Your task to perform on an android device: Clear the shopping cart on amazon.com. Add logitech g pro to the cart on amazon.com, then select checkout. Image 0: 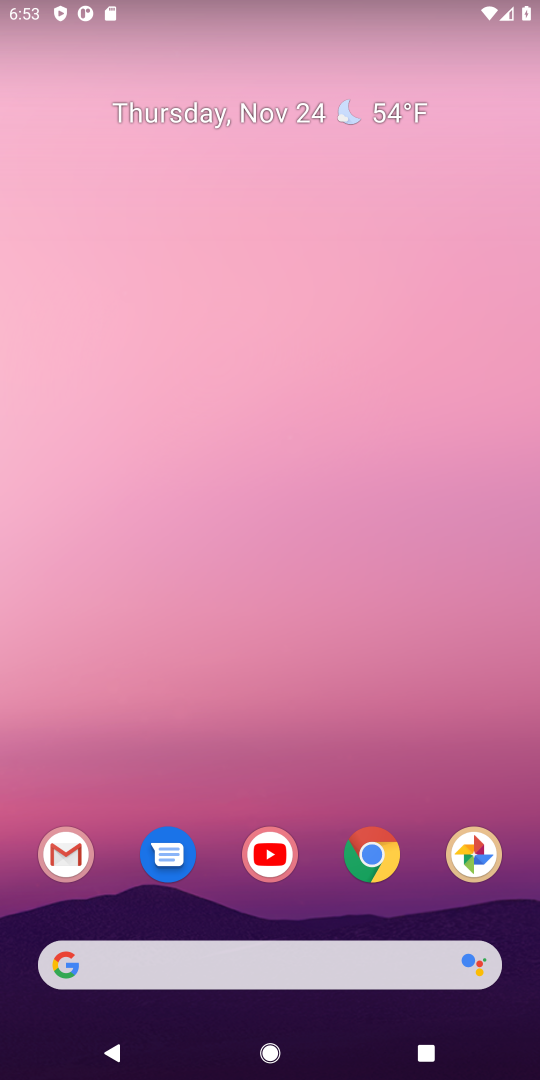
Step 0: click (379, 858)
Your task to perform on an android device: Clear the shopping cart on amazon.com. Add logitech g pro to the cart on amazon.com, then select checkout. Image 1: 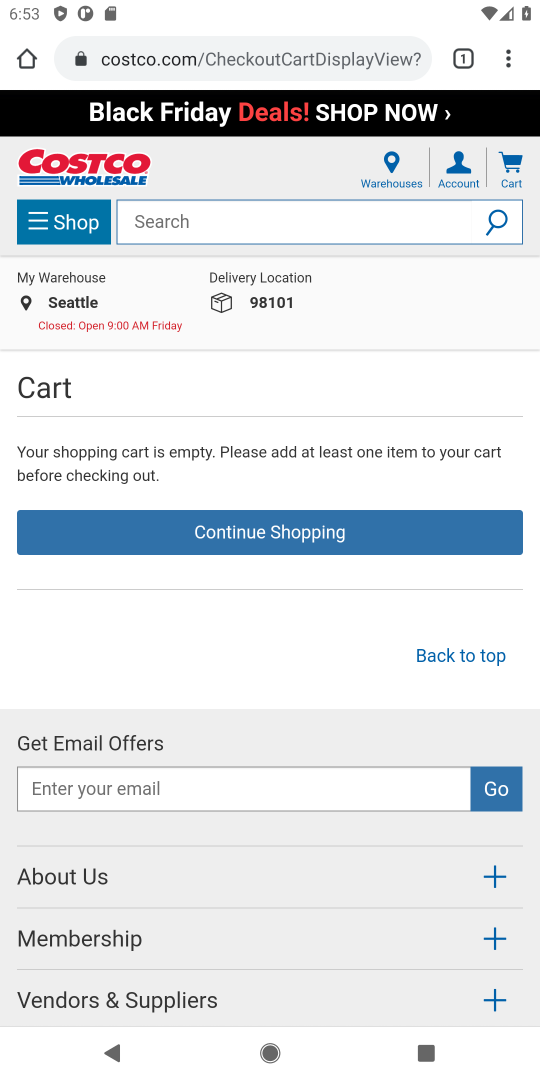
Step 1: click (233, 56)
Your task to perform on an android device: Clear the shopping cart on amazon.com. Add logitech g pro to the cart on amazon.com, then select checkout. Image 2: 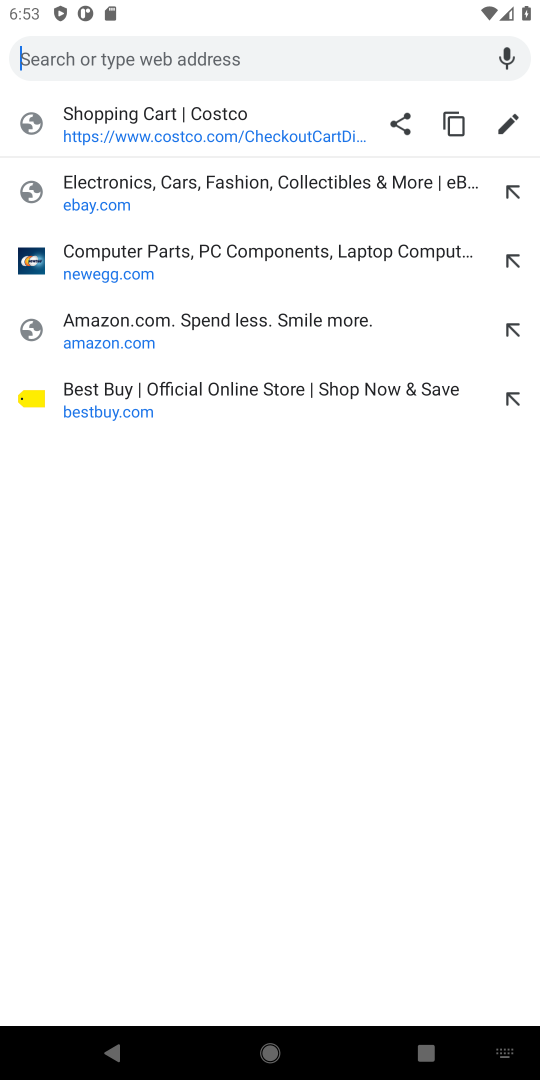
Step 2: click (91, 330)
Your task to perform on an android device: Clear the shopping cart on amazon.com. Add logitech g pro to the cart on amazon.com, then select checkout. Image 3: 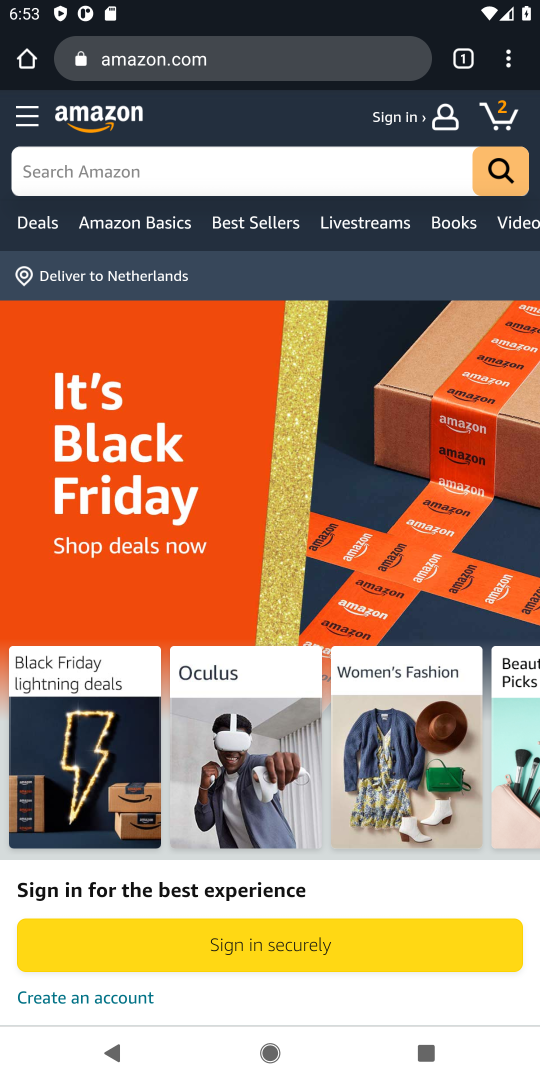
Step 3: click (510, 109)
Your task to perform on an android device: Clear the shopping cart on amazon.com. Add logitech g pro to the cart on amazon.com, then select checkout. Image 4: 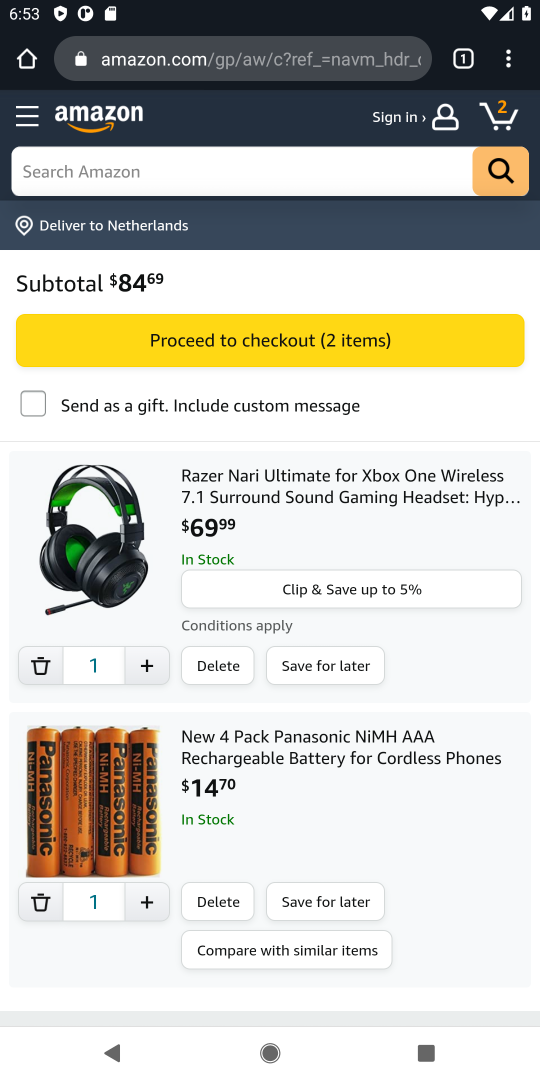
Step 4: click (39, 664)
Your task to perform on an android device: Clear the shopping cart on amazon.com. Add logitech g pro to the cart on amazon.com, then select checkout. Image 5: 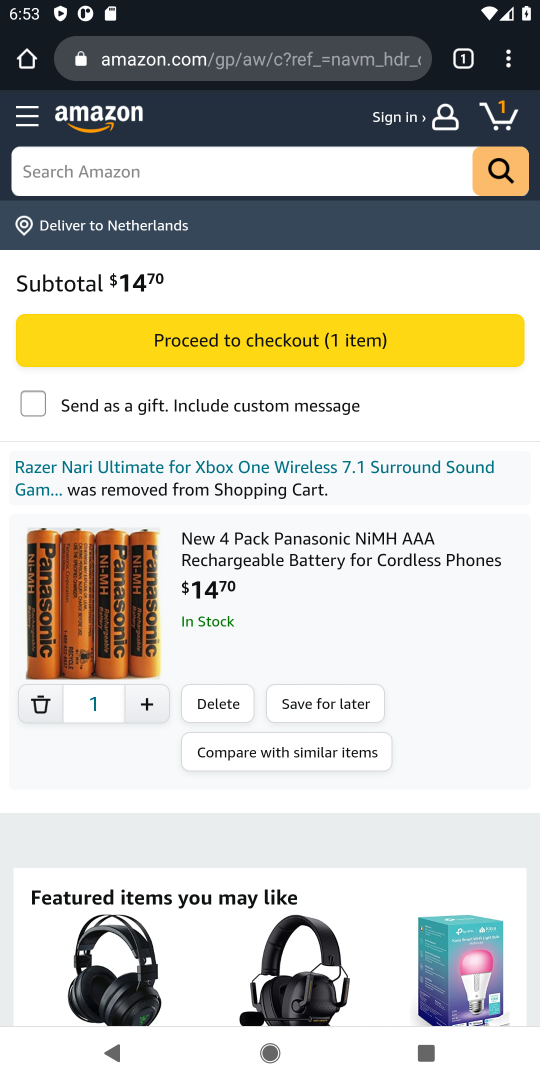
Step 5: click (44, 710)
Your task to perform on an android device: Clear the shopping cart on amazon.com. Add logitech g pro to the cart on amazon.com, then select checkout. Image 6: 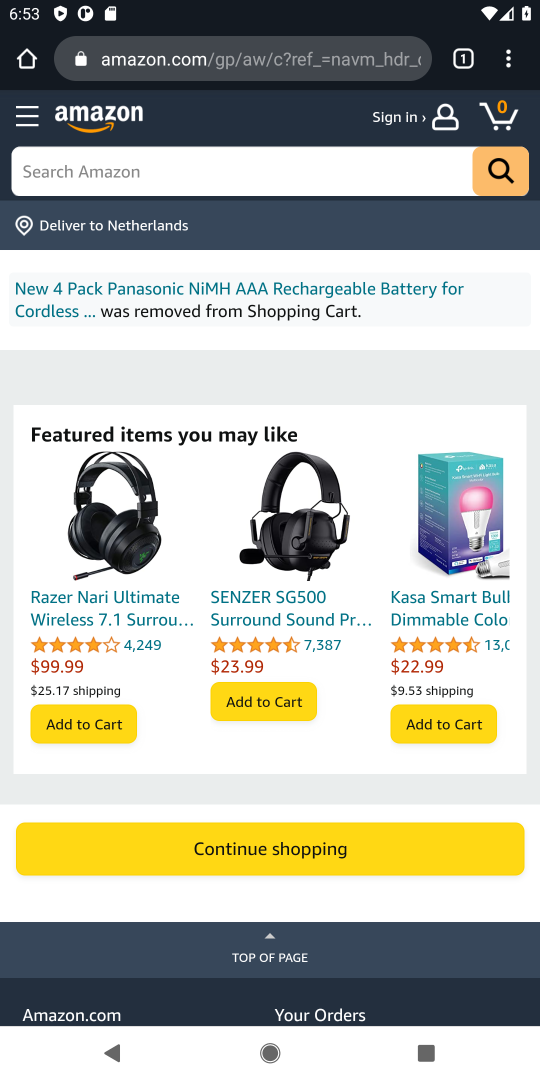
Step 6: click (171, 175)
Your task to perform on an android device: Clear the shopping cart on amazon.com. Add logitech g pro to the cart on amazon.com, then select checkout. Image 7: 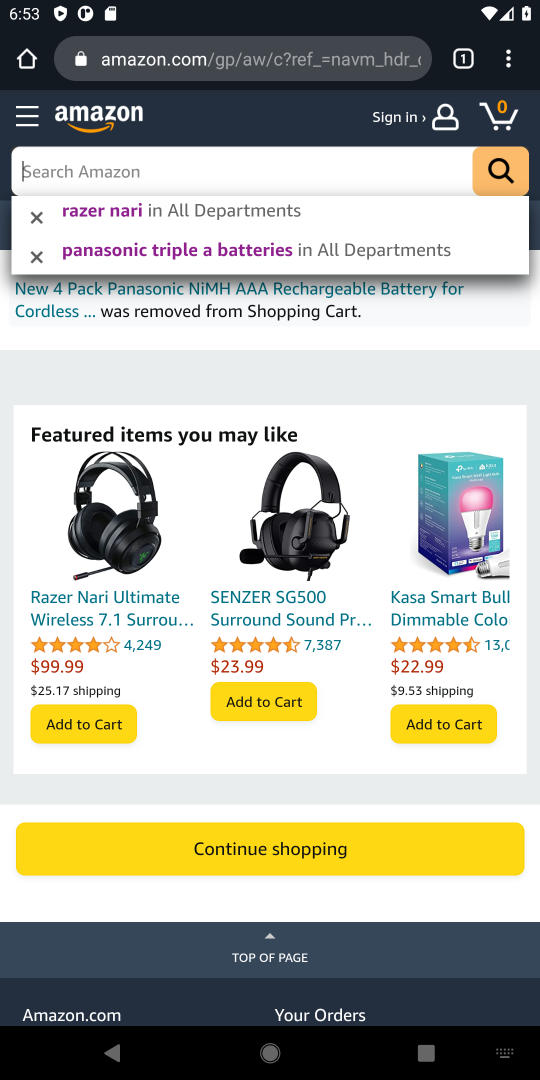
Step 7: type "logitech g pro"
Your task to perform on an android device: Clear the shopping cart on amazon.com. Add logitech g pro to the cart on amazon.com, then select checkout. Image 8: 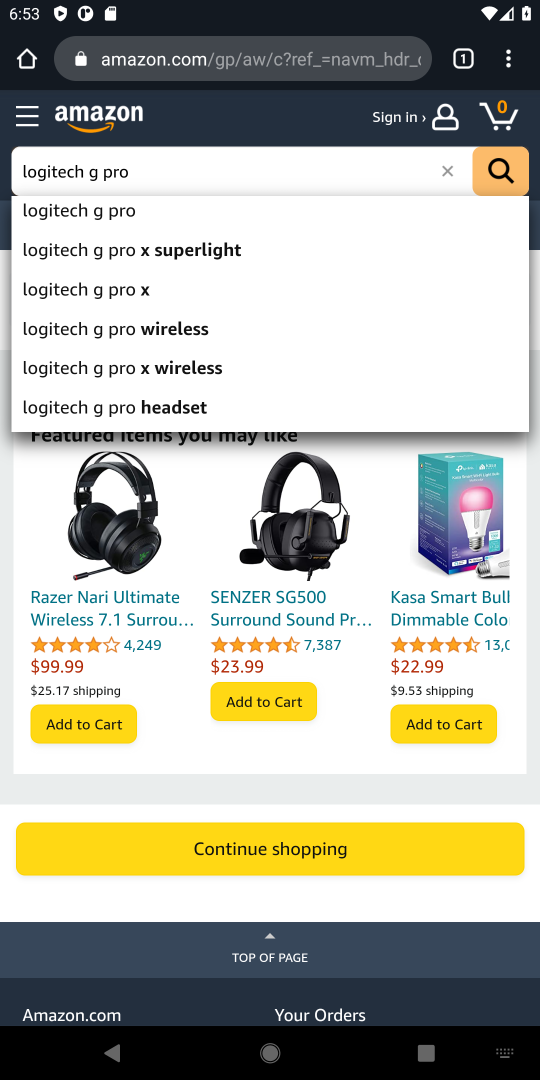
Step 8: click (52, 213)
Your task to perform on an android device: Clear the shopping cart on amazon.com. Add logitech g pro to the cart on amazon.com, then select checkout. Image 9: 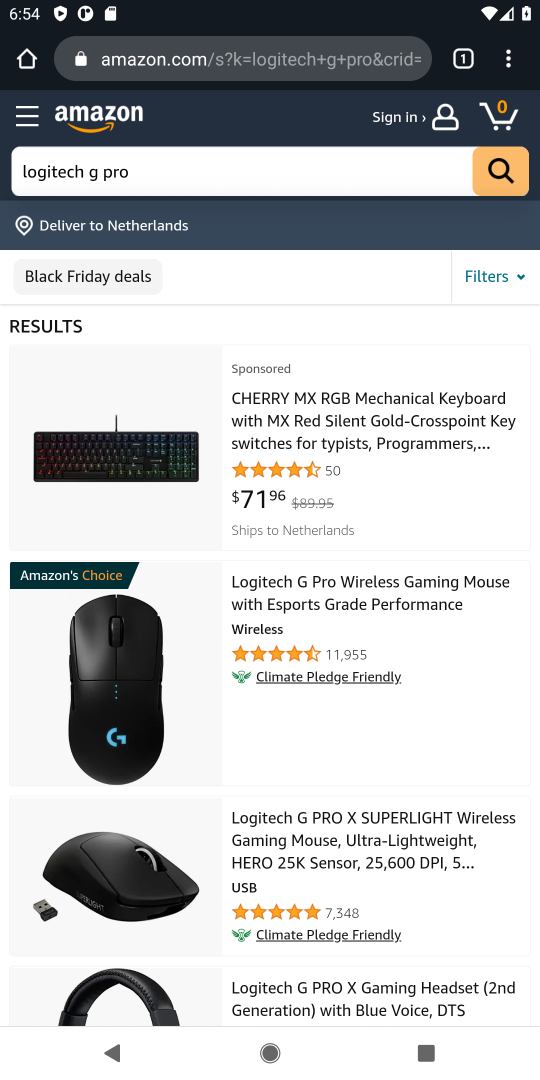
Step 9: drag from (113, 662) to (156, 375)
Your task to perform on an android device: Clear the shopping cart on amazon.com. Add logitech g pro to the cart on amazon.com, then select checkout. Image 10: 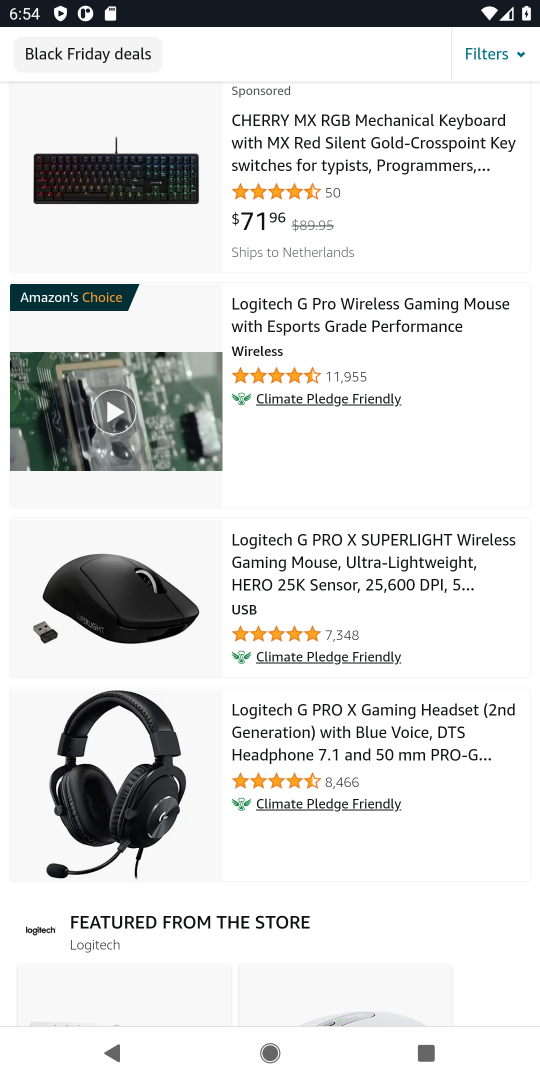
Step 10: drag from (153, 763) to (181, 294)
Your task to perform on an android device: Clear the shopping cart on amazon.com. Add logitech g pro to the cart on amazon.com, then select checkout. Image 11: 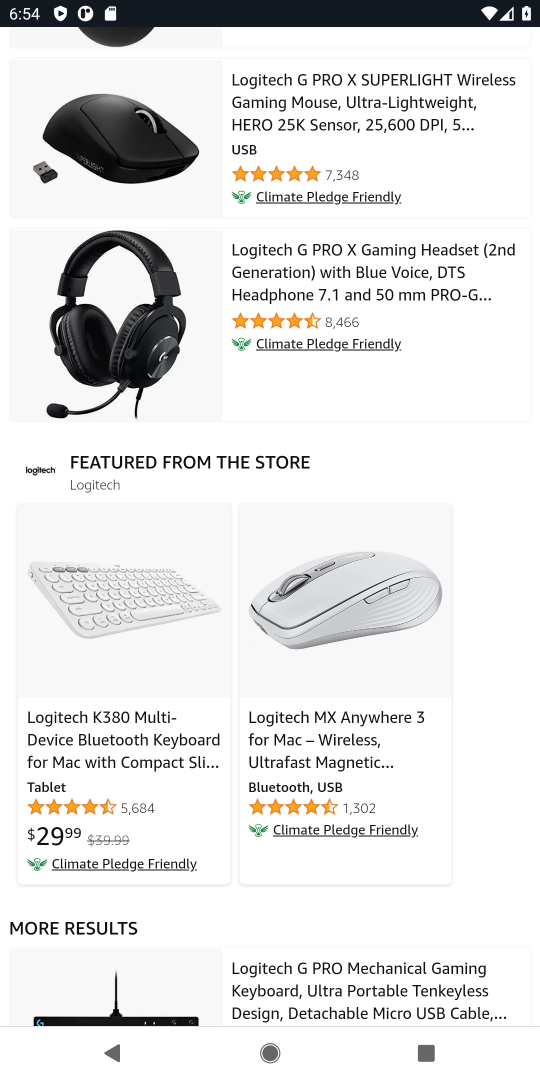
Step 11: drag from (145, 758) to (167, 473)
Your task to perform on an android device: Clear the shopping cart on amazon.com. Add logitech g pro to the cart on amazon.com, then select checkout. Image 12: 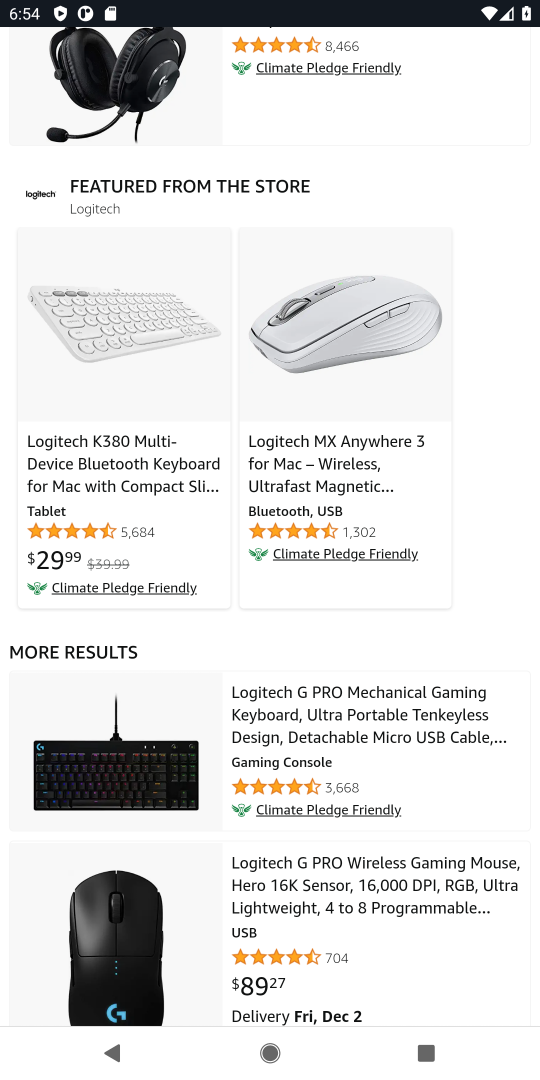
Step 12: drag from (133, 738) to (123, 424)
Your task to perform on an android device: Clear the shopping cart on amazon.com. Add logitech g pro to the cart on amazon.com, then select checkout. Image 13: 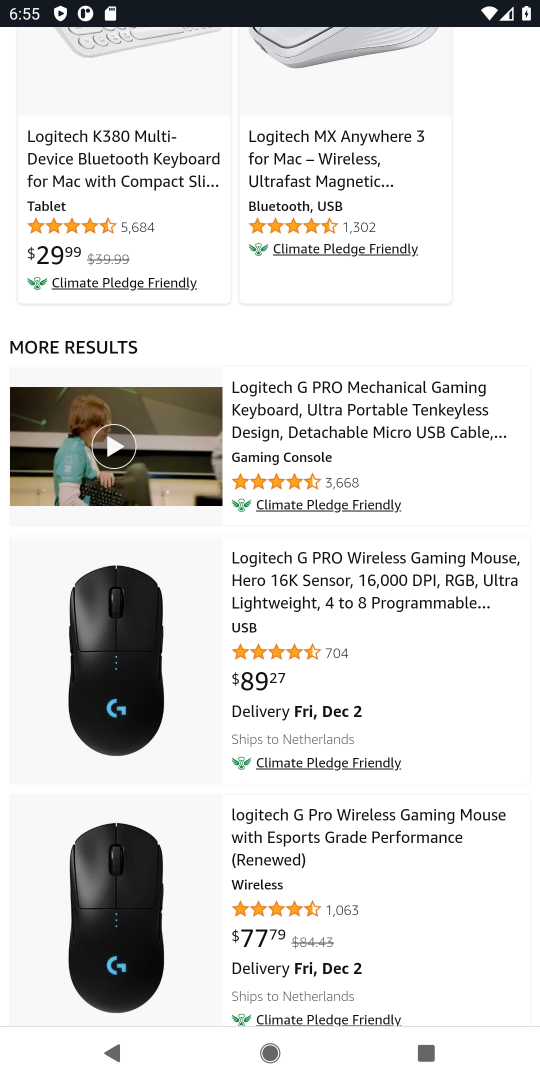
Step 13: click (113, 683)
Your task to perform on an android device: Clear the shopping cart on amazon.com. Add logitech g pro to the cart on amazon.com, then select checkout. Image 14: 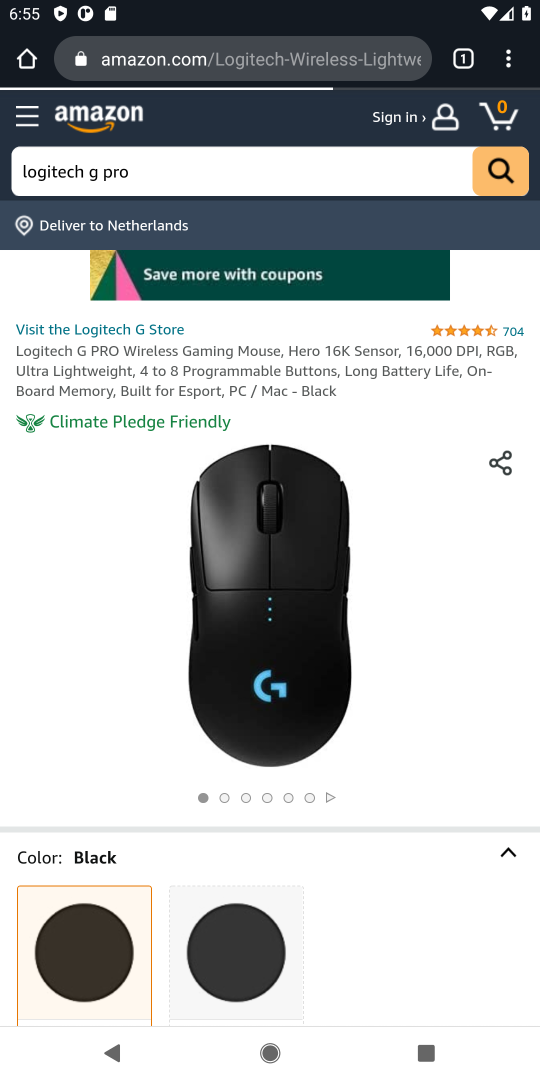
Step 14: drag from (257, 742) to (272, 323)
Your task to perform on an android device: Clear the shopping cart on amazon.com. Add logitech g pro to the cart on amazon.com, then select checkout. Image 15: 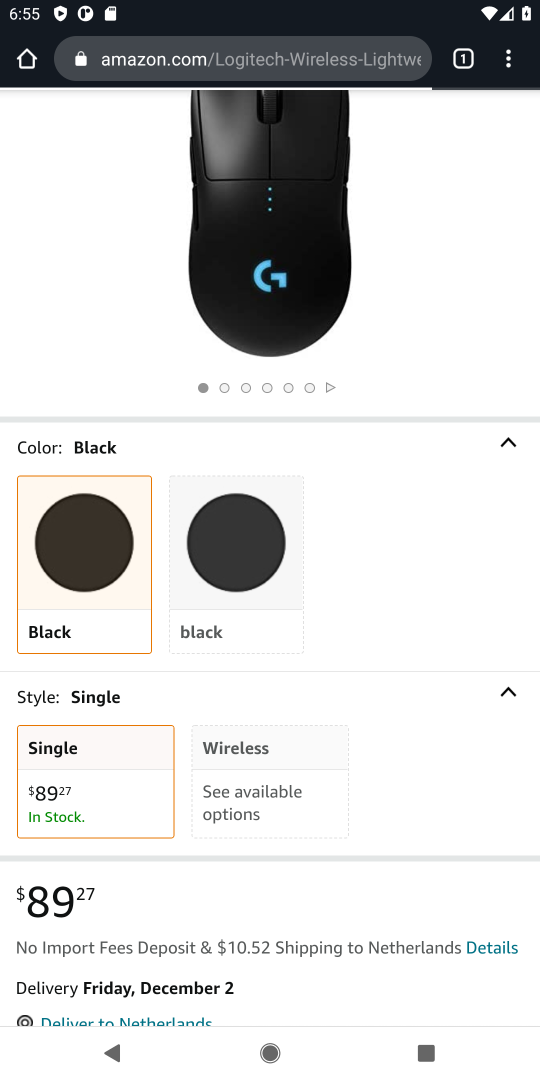
Step 15: drag from (308, 762) to (336, 356)
Your task to perform on an android device: Clear the shopping cart on amazon.com. Add logitech g pro to the cart on amazon.com, then select checkout. Image 16: 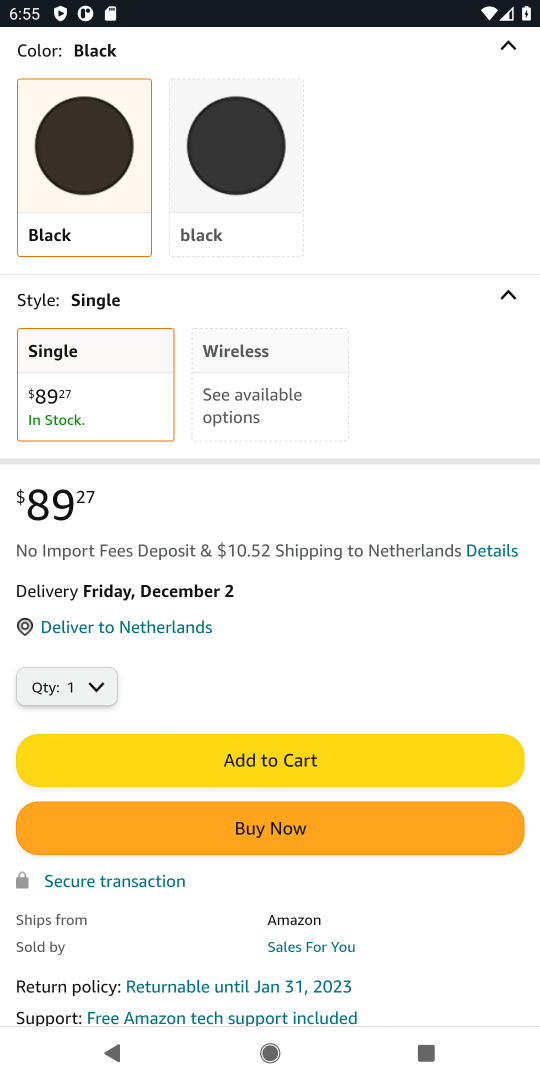
Step 16: click (263, 766)
Your task to perform on an android device: Clear the shopping cart on amazon.com. Add logitech g pro to the cart on amazon.com, then select checkout. Image 17: 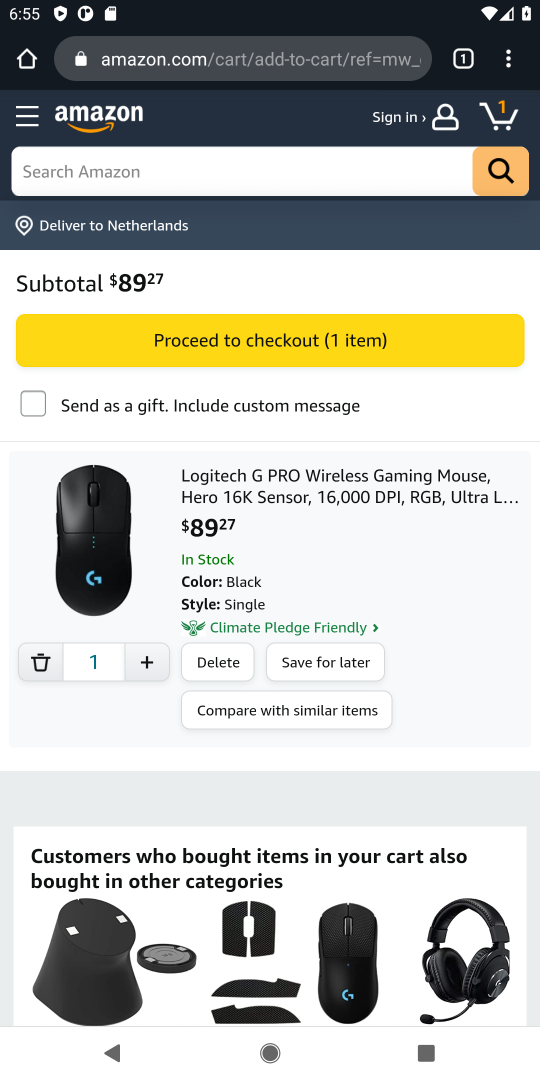
Step 17: click (257, 346)
Your task to perform on an android device: Clear the shopping cart on amazon.com. Add logitech g pro to the cart on amazon.com, then select checkout. Image 18: 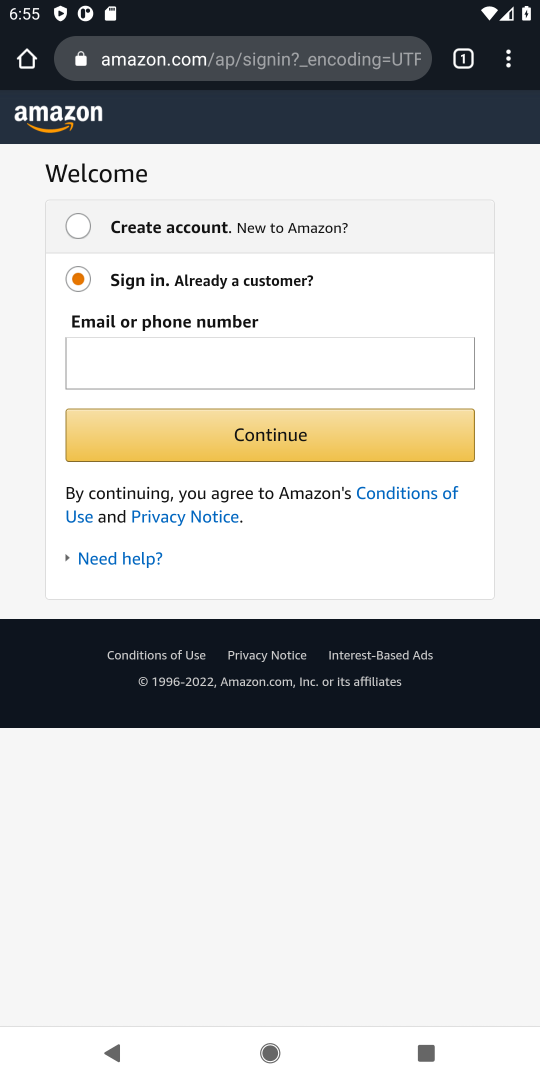
Step 18: task complete